Your task to perform on an android device: Go to wifi settings Image 0: 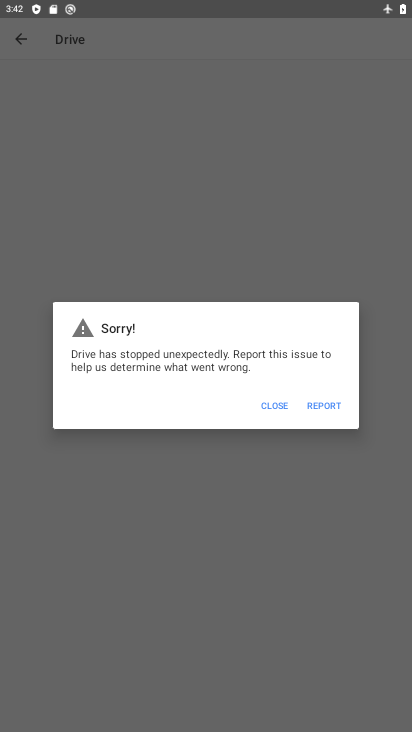
Step 0: press home button
Your task to perform on an android device: Go to wifi settings Image 1: 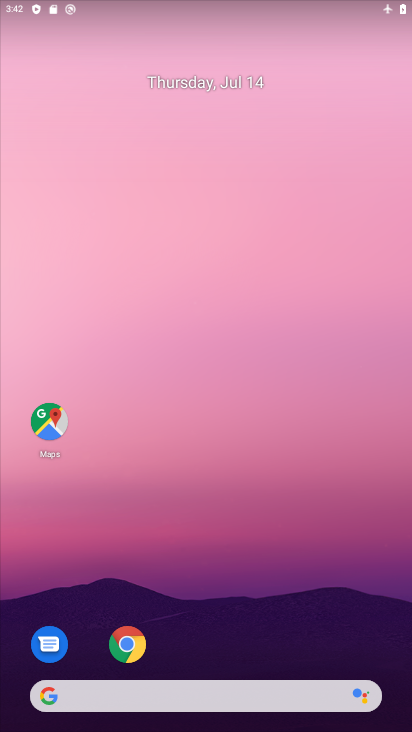
Step 1: drag from (382, 15) to (353, 318)
Your task to perform on an android device: Go to wifi settings Image 2: 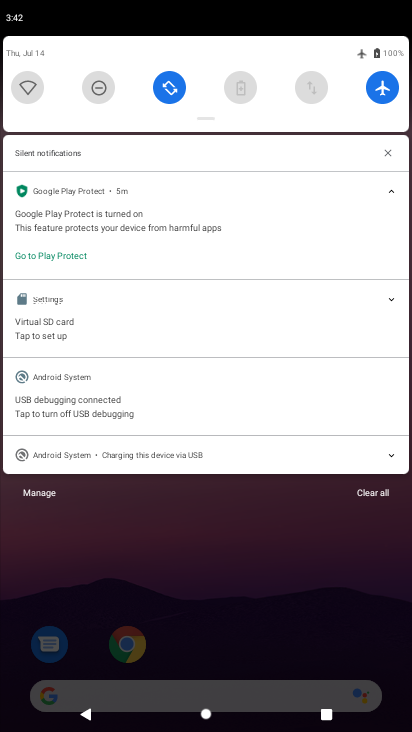
Step 2: click (28, 85)
Your task to perform on an android device: Go to wifi settings Image 3: 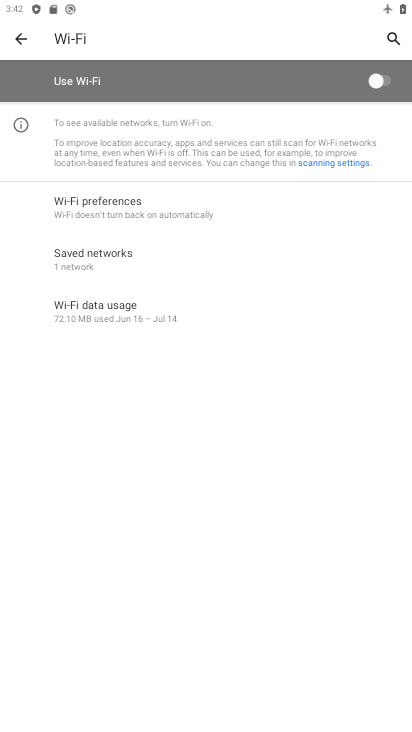
Step 3: task complete